Your task to perform on an android device: check data usage Image 0: 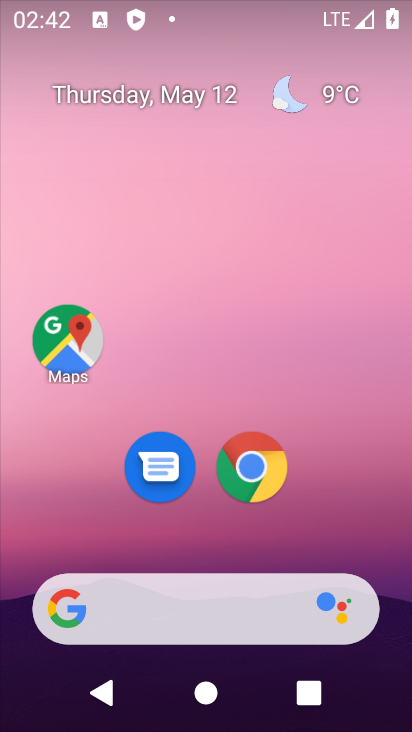
Step 0: drag from (336, 543) to (324, 236)
Your task to perform on an android device: check data usage Image 1: 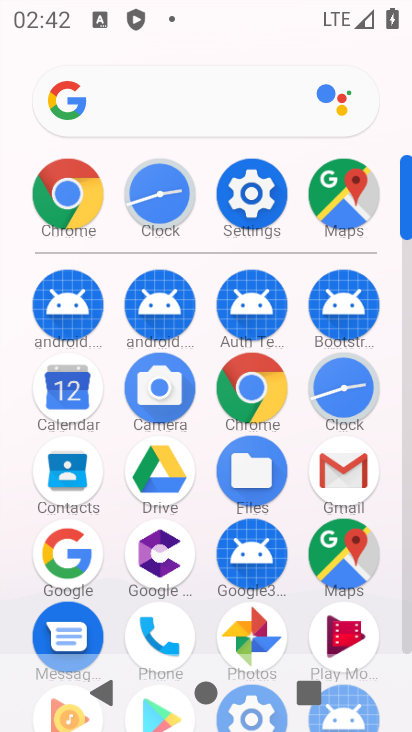
Step 1: click (255, 193)
Your task to perform on an android device: check data usage Image 2: 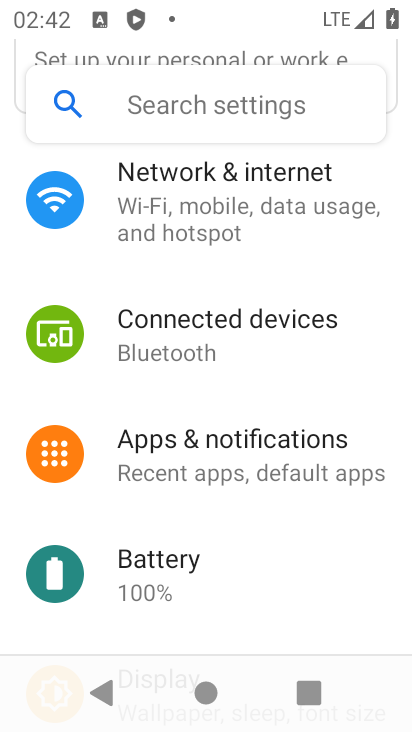
Step 2: click (236, 186)
Your task to perform on an android device: check data usage Image 3: 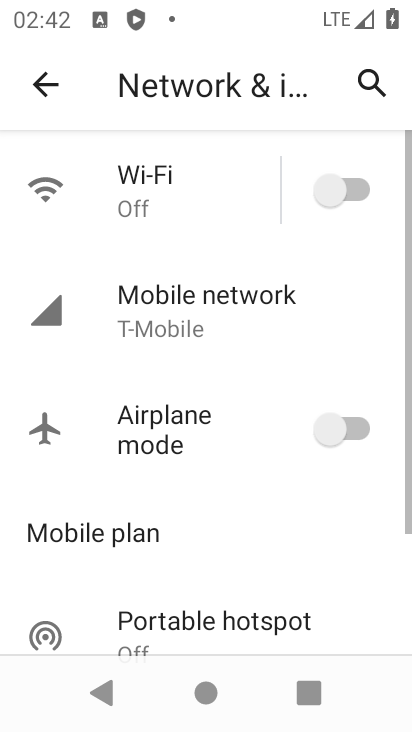
Step 3: drag from (195, 486) to (218, 352)
Your task to perform on an android device: check data usage Image 4: 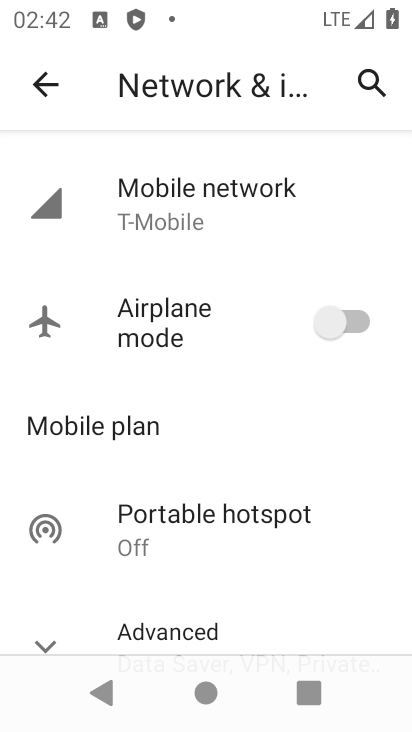
Step 4: click (191, 217)
Your task to perform on an android device: check data usage Image 5: 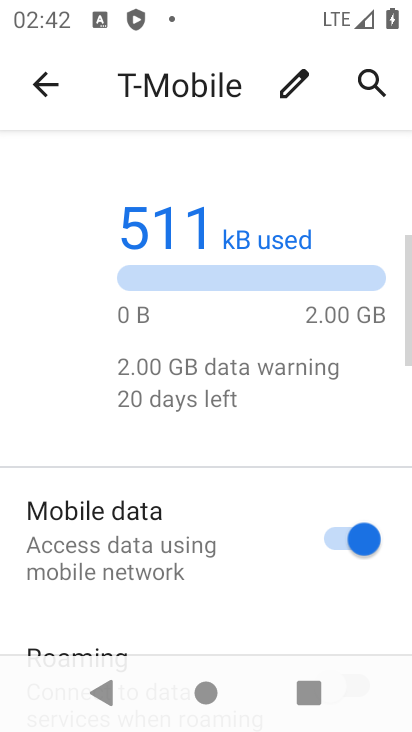
Step 5: drag from (218, 610) to (234, 289)
Your task to perform on an android device: check data usage Image 6: 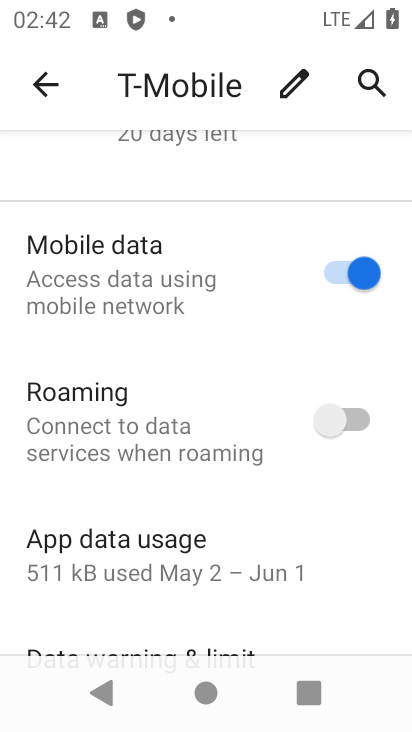
Step 6: drag from (204, 590) to (216, 365)
Your task to perform on an android device: check data usage Image 7: 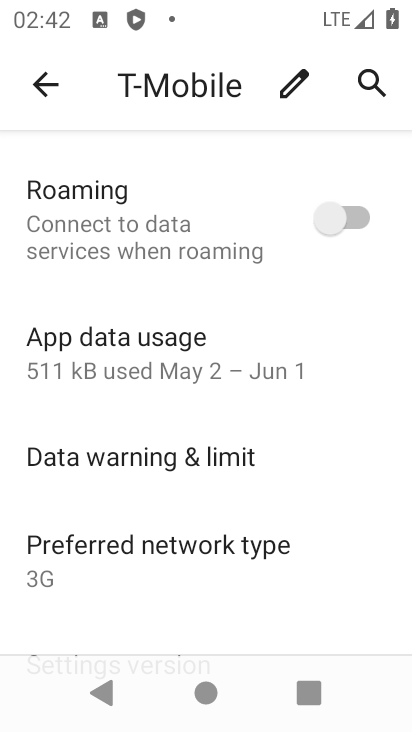
Step 7: click (183, 345)
Your task to perform on an android device: check data usage Image 8: 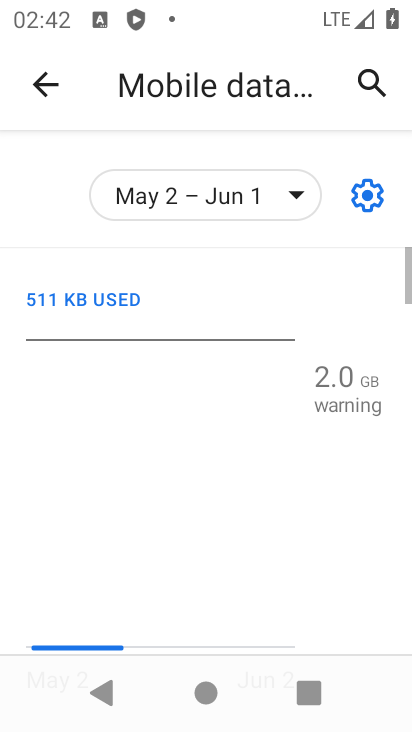
Step 8: task complete